Your task to perform on an android device: turn off sleep mode Image 0: 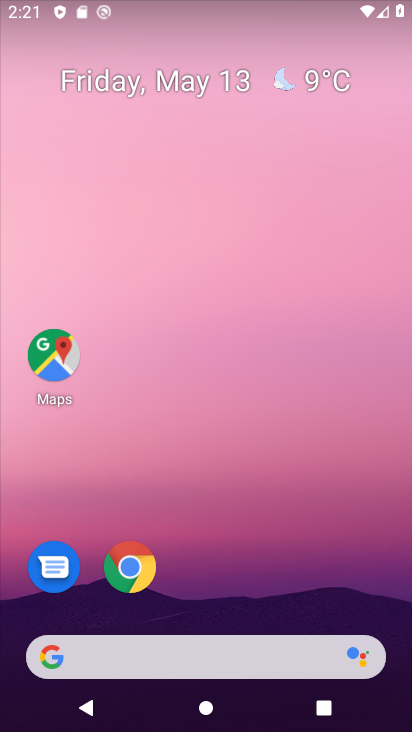
Step 0: drag from (284, 587) to (302, 5)
Your task to perform on an android device: turn off sleep mode Image 1: 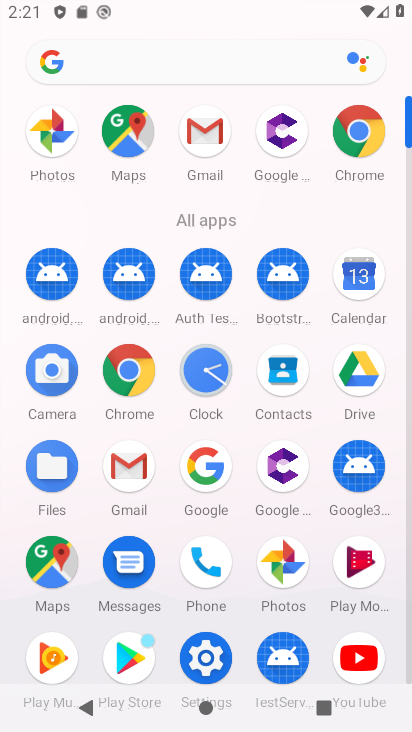
Step 1: click (213, 654)
Your task to perform on an android device: turn off sleep mode Image 2: 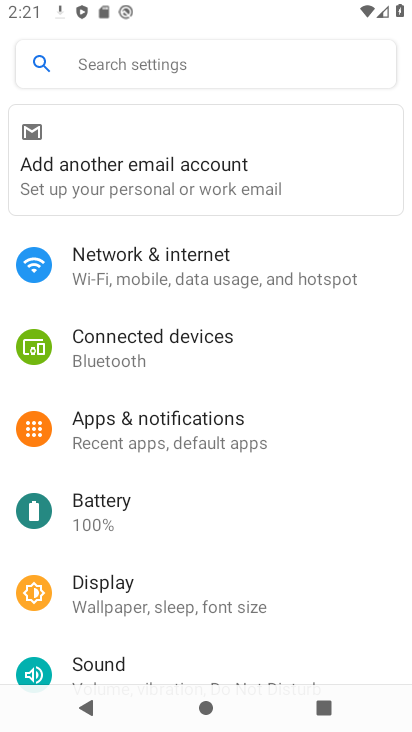
Step 2: click (116, 588)
Your task to perform on an android device: turn off sleep mode Image 3: 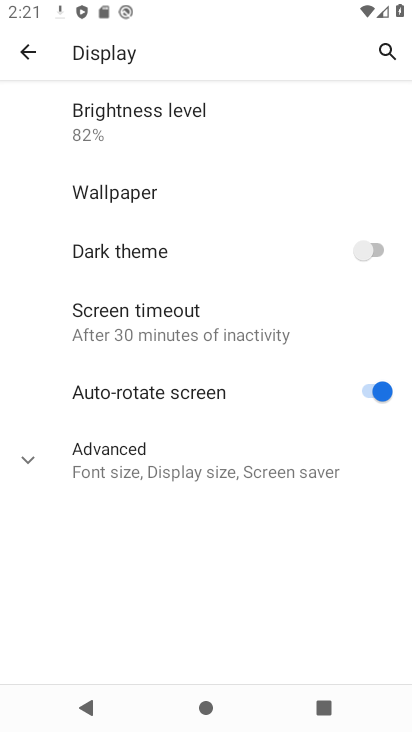
Step 3: click (29, 461)
Your task to perform on an android device: turn off sleep mode Image 4: 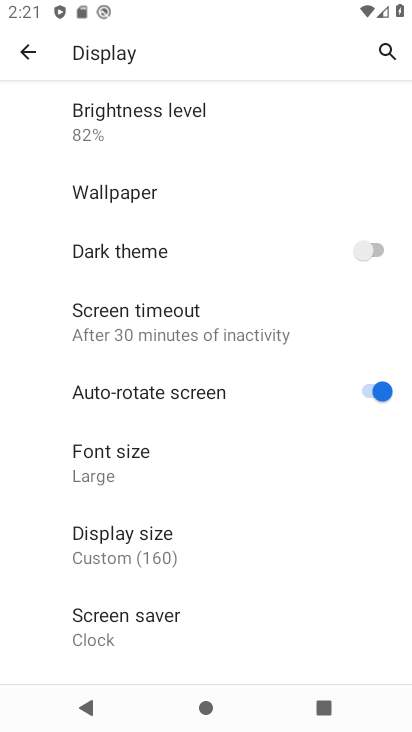
Step 4: task complete